Your task to perform on an android device: open a bookmark in the chrome app Image 0: 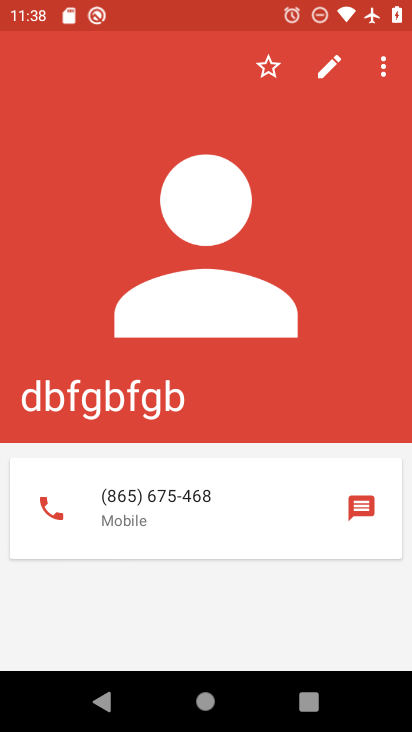
Step 0: press home button
Your task to perform on an android device: open a bookmark in the chrome app Image 1: 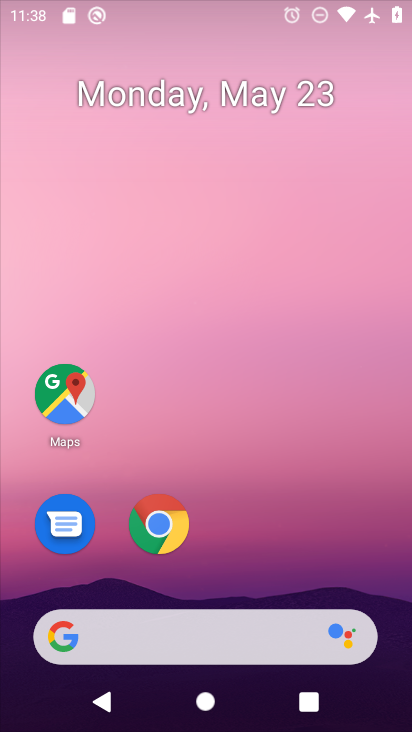
Step 1: click (162, 533)
Your task to perform on an android device: open a bookmark in the chrome app Image 2: 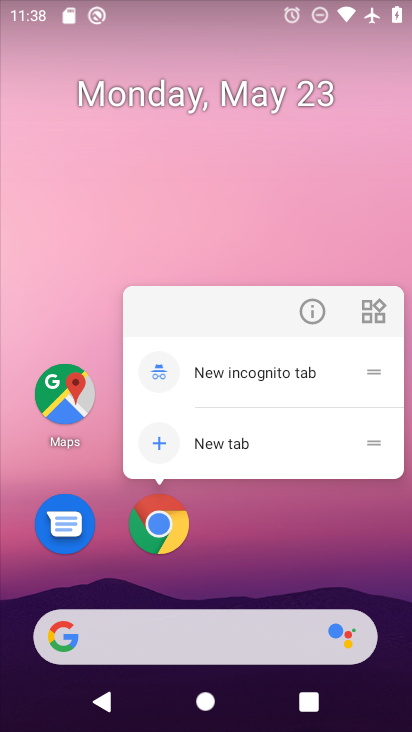
Step 2: click (167, 515)
Your task to perform on an android device: open a bookmark in the chrome app Image 3: 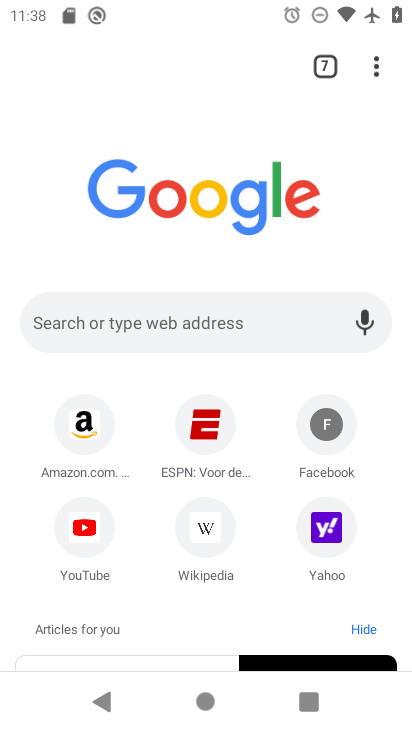
Step 3: drag from (370, 65) to (196, 318)
Your task to perform on an android device: open a bookmark in the chrome app Image 4: 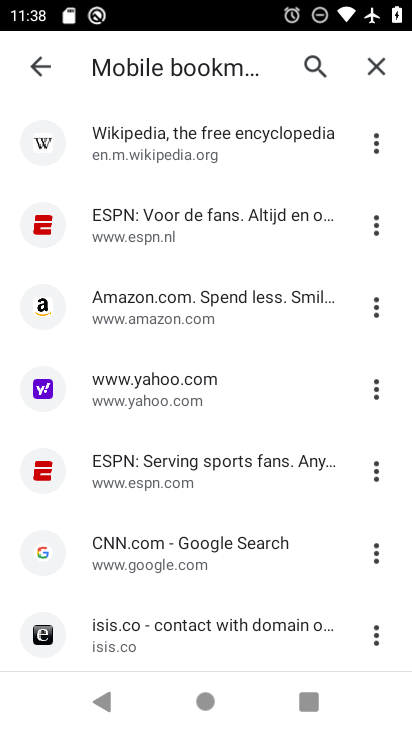
Step 4: click (262, 338)
Your task to perform on an android device: open a bookmark in the chrome app Image 5: 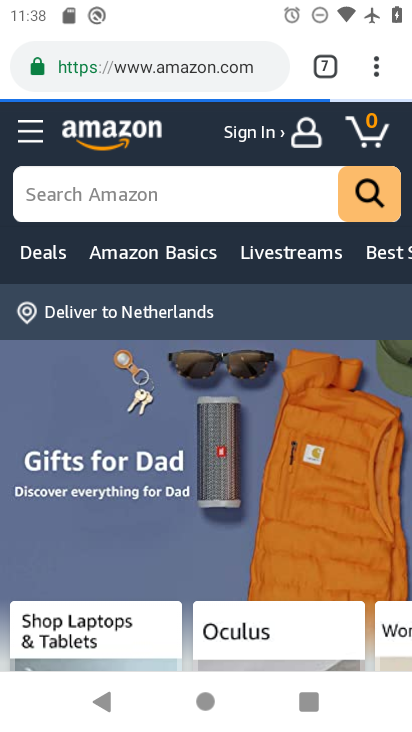
Step 5: task complete